Your task to perform on an android device: Open calendar and show me the second week of next month Image 0: 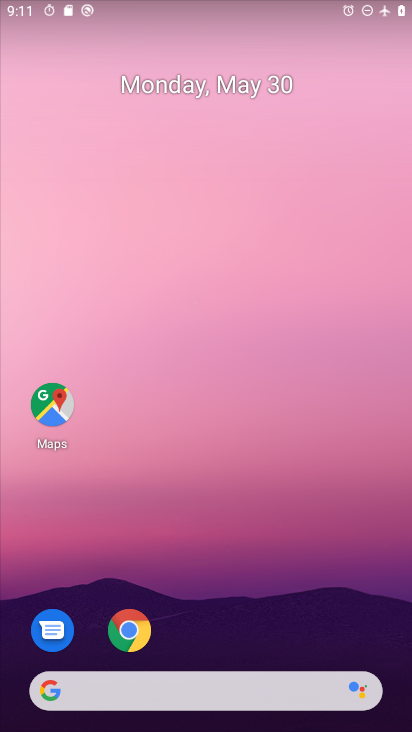
Step 0: drag from (328, 595) to (351, 456)
Your task to perform on an android device: Open calendar and show me the second week of next month Image 1: 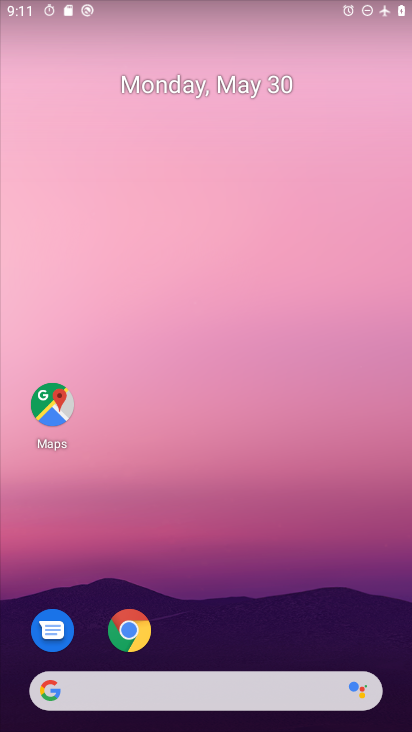
Step 1: drag from (333, 619) to (240, 28)
Your task to perform on an android device: Open calendar and show me the second week of next month Image 2: 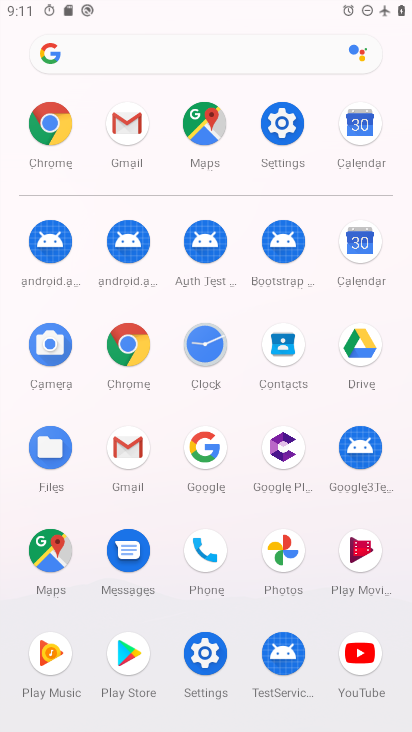
Step 2: click (352, 251)
Your task to perform on an android device: Open calendar and show me the second week of next month Image 3: 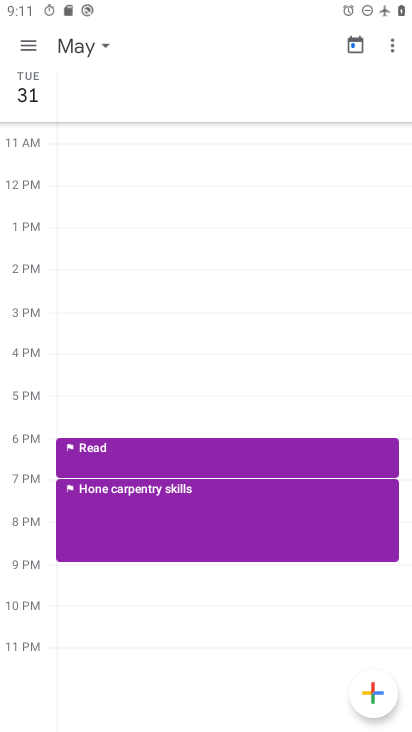
Step 3: click (70, 35)
Your task to perform on an android device: Open calendar and show me the second week of next month Image 4: 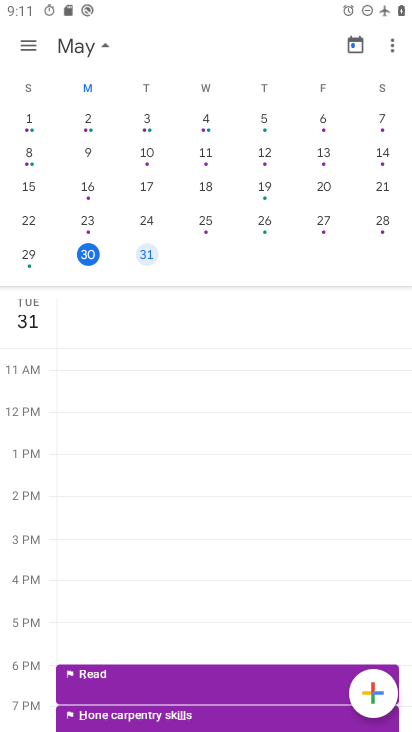
Step 4: drag from (367, 170) to (55, 164)
Your task to perform on an android device: Open calendar and show me the second week of next month Image 5: 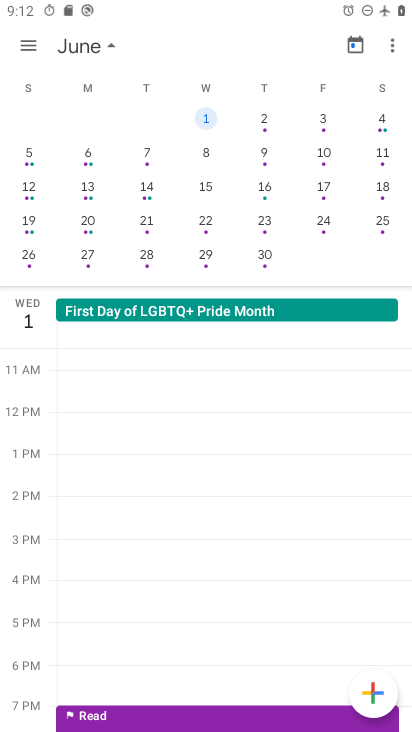
Step 5: click (30, 182)
Your task to perform on an android device: Open calendar and show me the second week of next month Image 6: 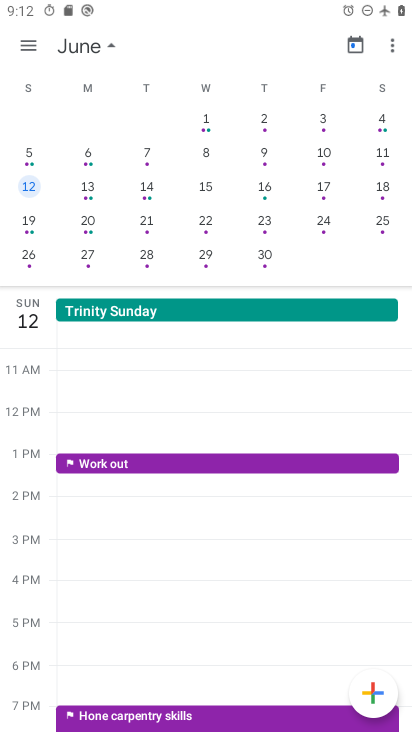
Step 6: task complete